Your task to perform on an android device: turn off notifications in google photos Image 0: 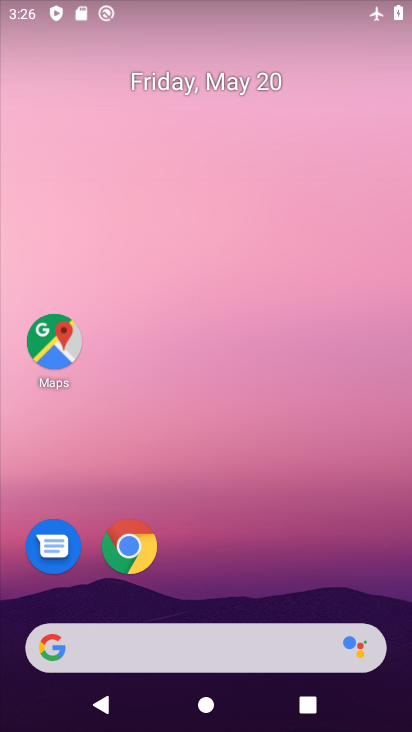
Step 0: drag from (299, 548) to (331, 42)
Your task to perform on an android device: turn off notifications in google photos Image 1: 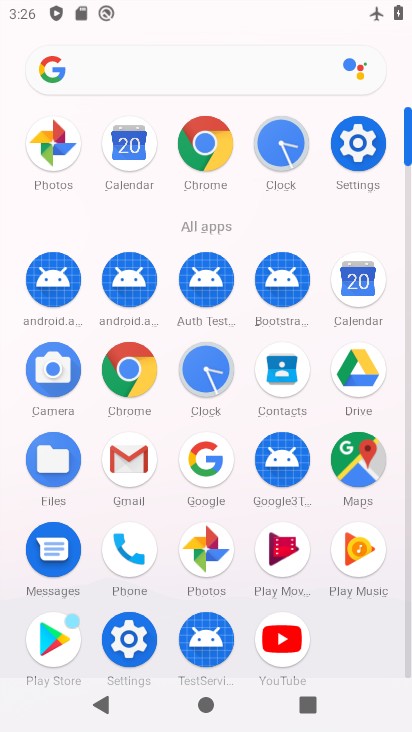
Step 1: click (195, 550)
Your task to perform on an android device: turn off notifications in google photos Image 2: 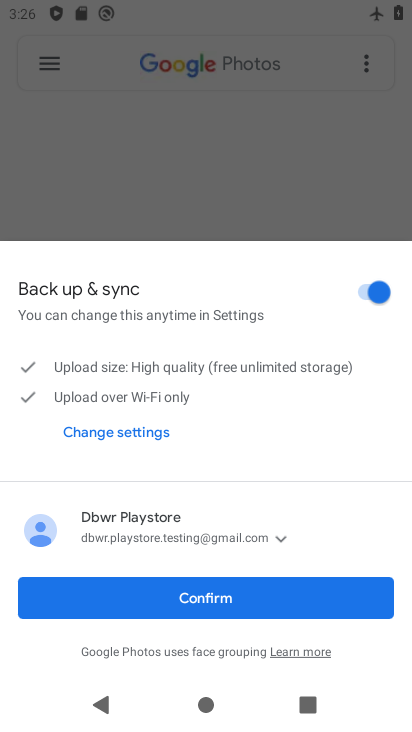
Step 2: click (249, 611)
Your task to perform on an android device: turn off notifications in google photos Image 3: 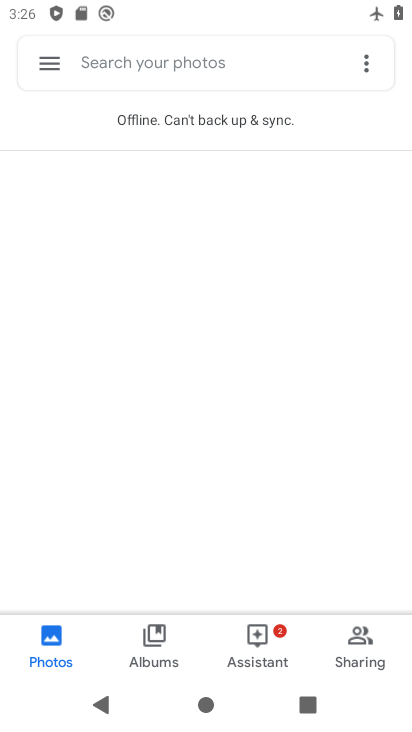
Step 3: click (55, 59)
Your task to perform on an android device: turn off notifications in google photos Image 4: 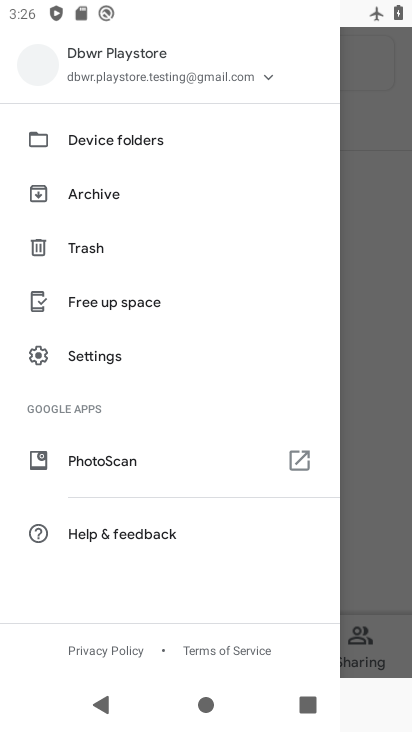
Step 4: click (109, 357)
Your task to perform on an android device: turn off notifications in google photos Image 5: 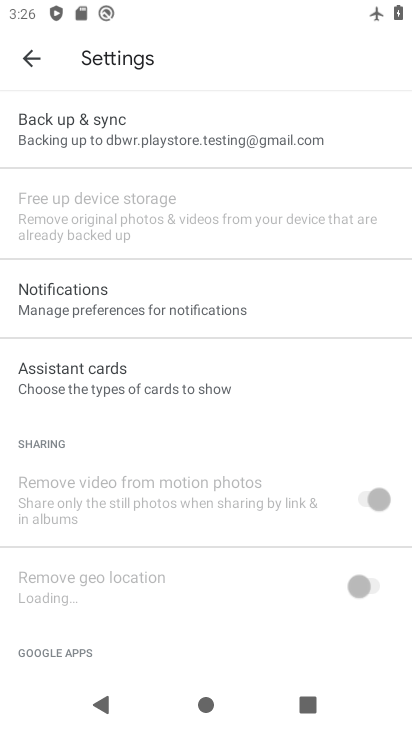
Step 5: click (145, 303)
Your task to perform on an android device: turn off notifications in google photos Image 6: 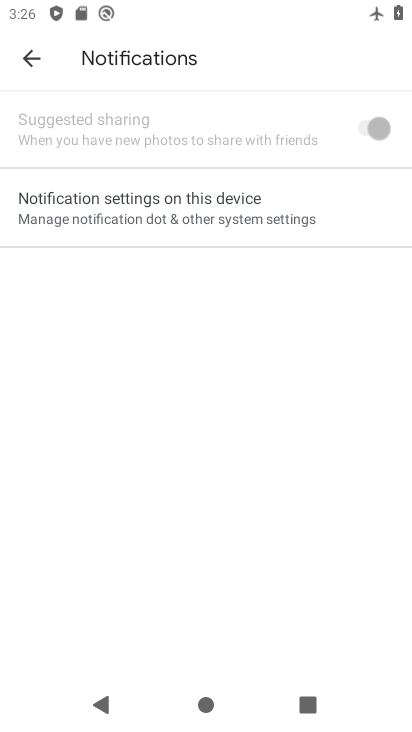
Step 6: click (310, 199)
Your task to perform on an android device: turn off notifications in google photos Image 7: 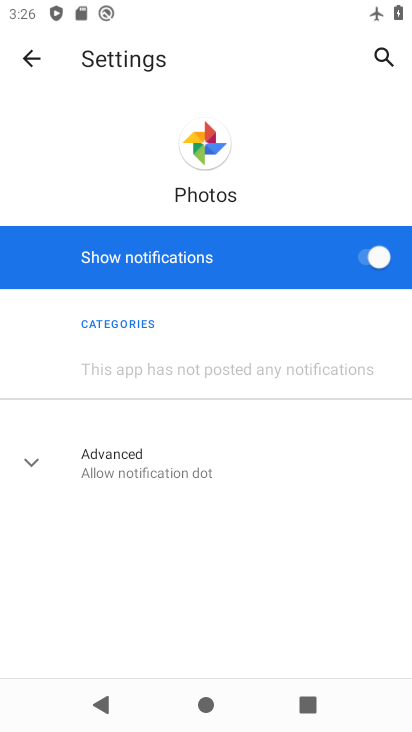
Step 7: click (384, 255)
Your task to perform on an android device: turn off notifications in google photos Image 8: 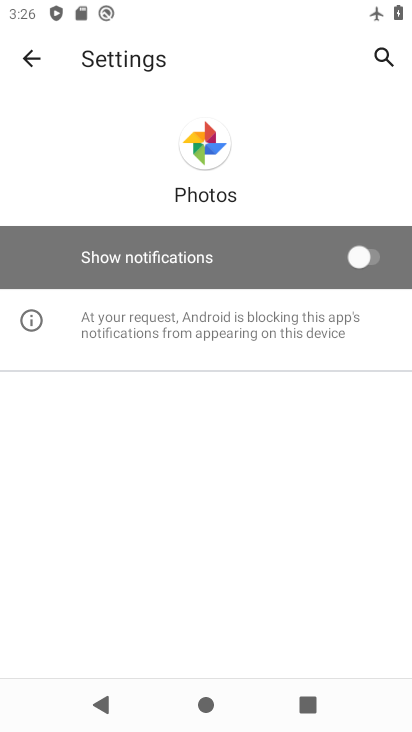
Step 8: task complete